Your task to perform on an android device: Search for flights from Tokyo to Seoul Image 0: 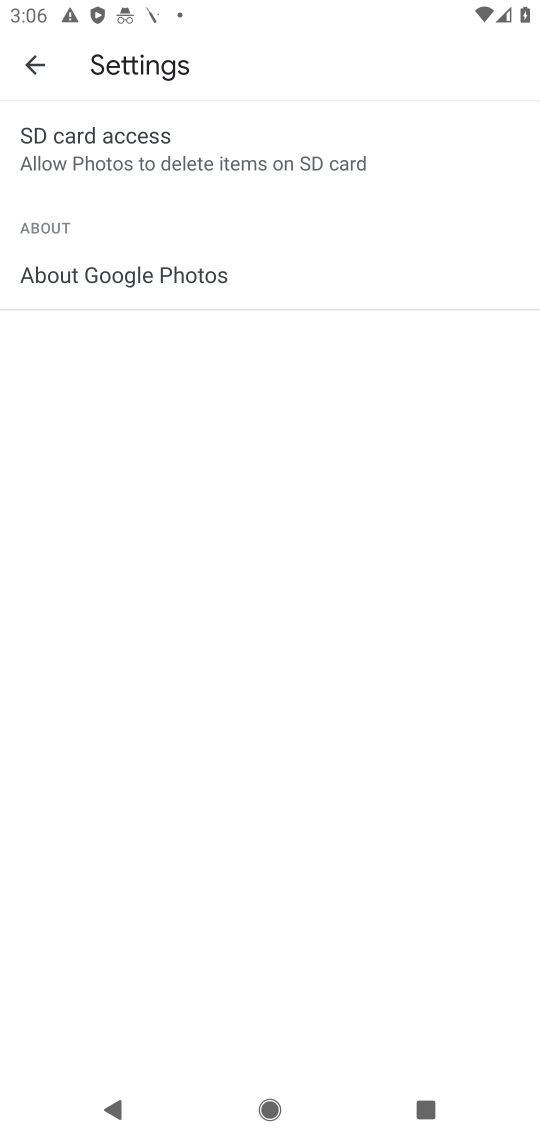
Step 0: press home button
Your task to perform on an android device: Search for flights from Tokyo to Seoul Image 1: 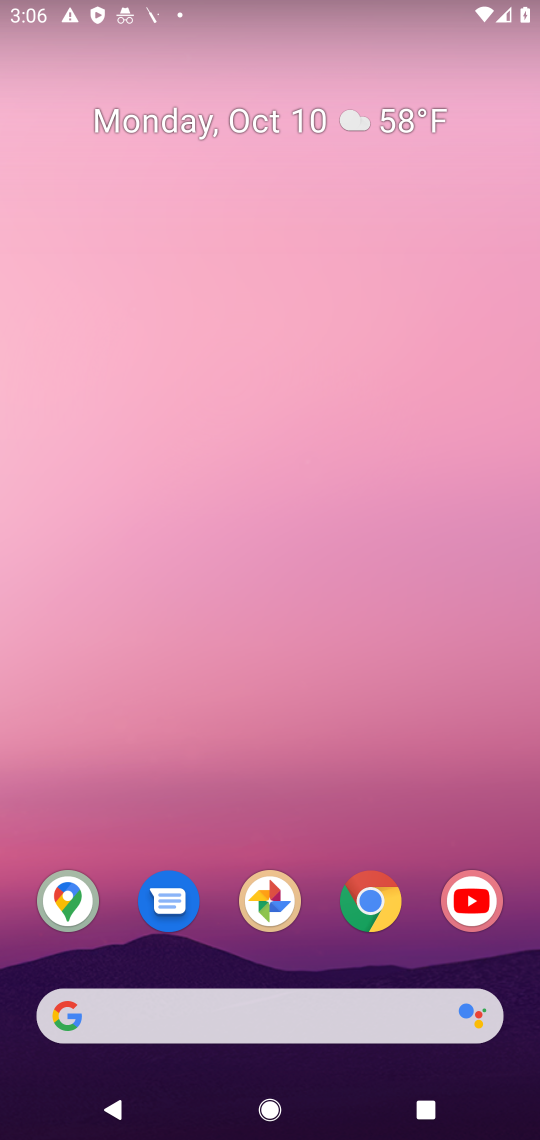
Step 1: drag from (344, 940) to (366, 469)
Your task to perform on an android device: Search for flights from Tokyo to Seoul Image 2: 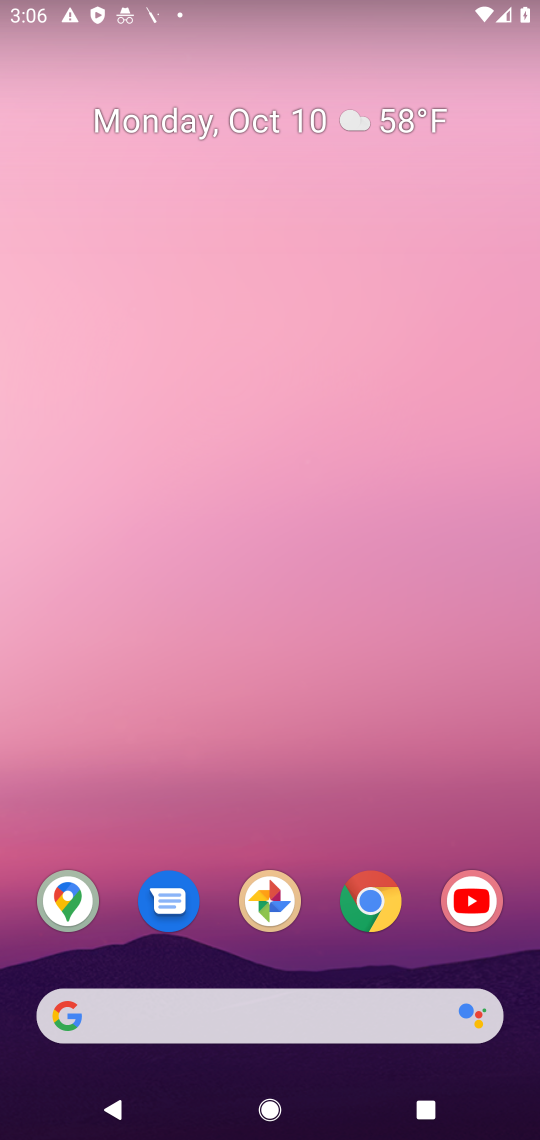
Step 2: drag from (282, 933) to (320, 302)
Your task to perform on an android device: Search for flights from Tokyo to Seoul Image 3: 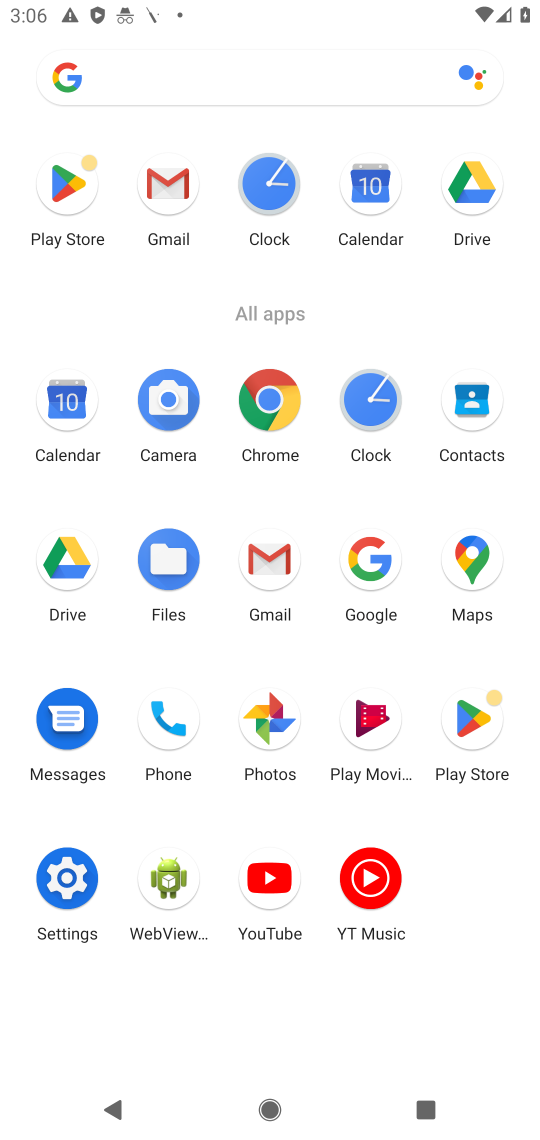
Step 3: click (376, 598)
Your task to perform on an android device: Search for flights from Tokyo to Seoul Image 4: 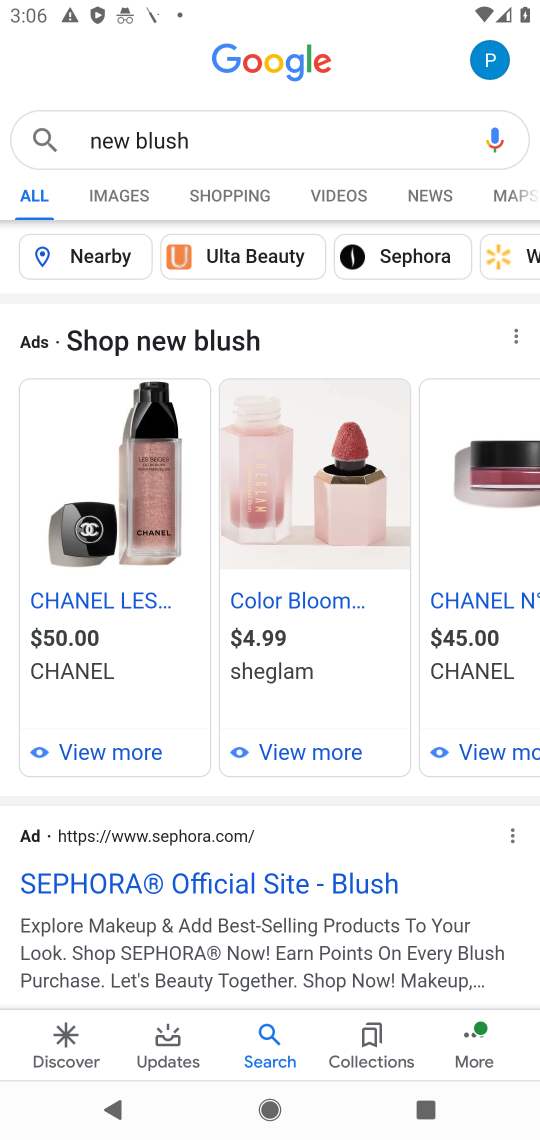
Step 4: click (305, 142)
Your task to perform on an android device: Search for flights from Tokyo to Seoul Image 5: 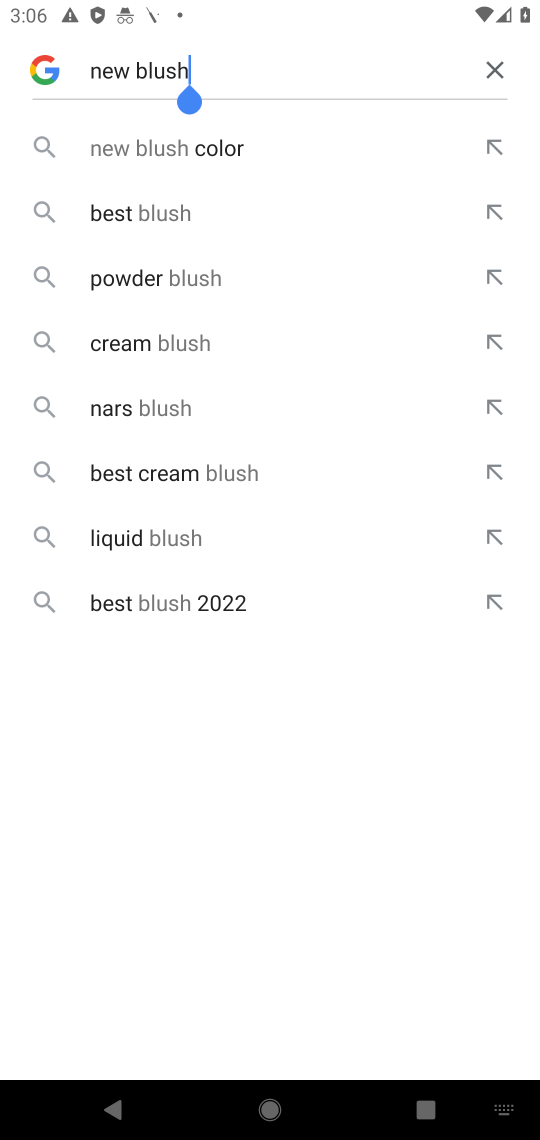
Step 5: click (495, 71)
Your task to perform on an android device: Search for flights from Tokyo to Seoul Image 6: 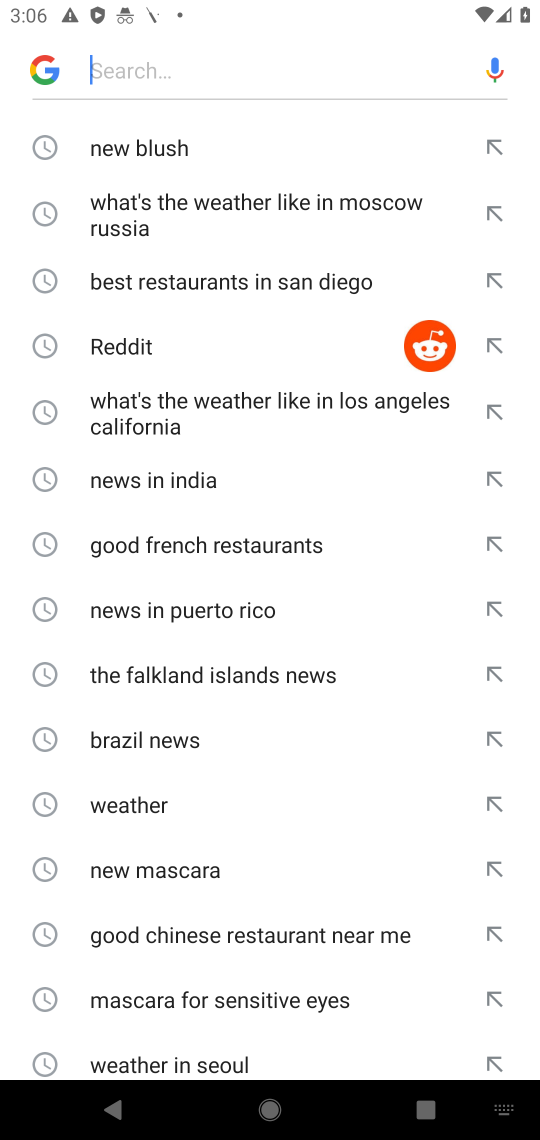
Step 6: type "flights from Tokyo to Seoul"
Your task to perform on an android device: Search for flights from Tokyo to Seoul Image 7: 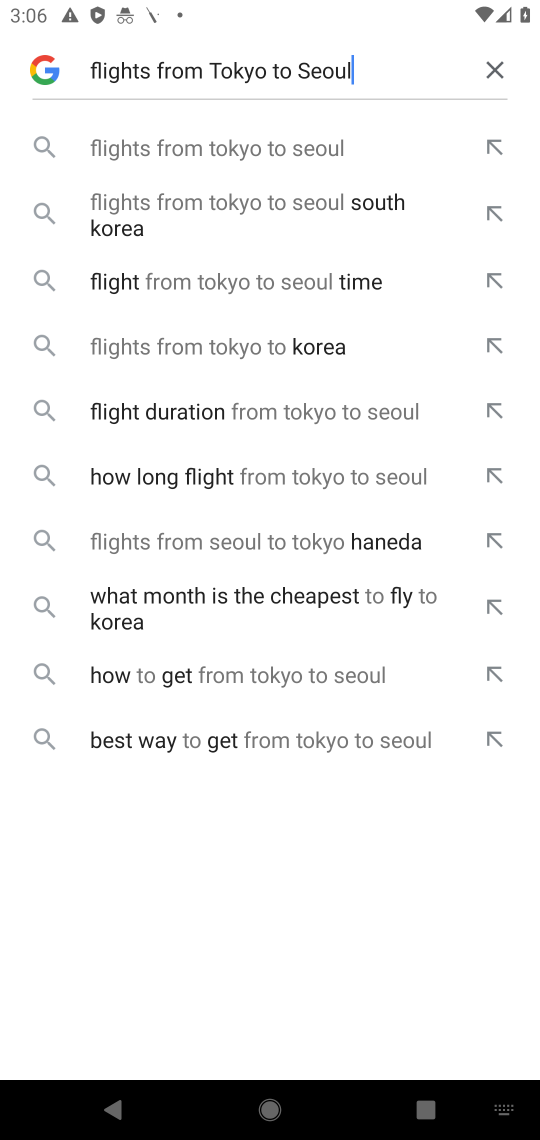
Step 7: click (342, 150)
Your task to perform on an android device: Search for flights from Tokyo to Seoul Image 8: 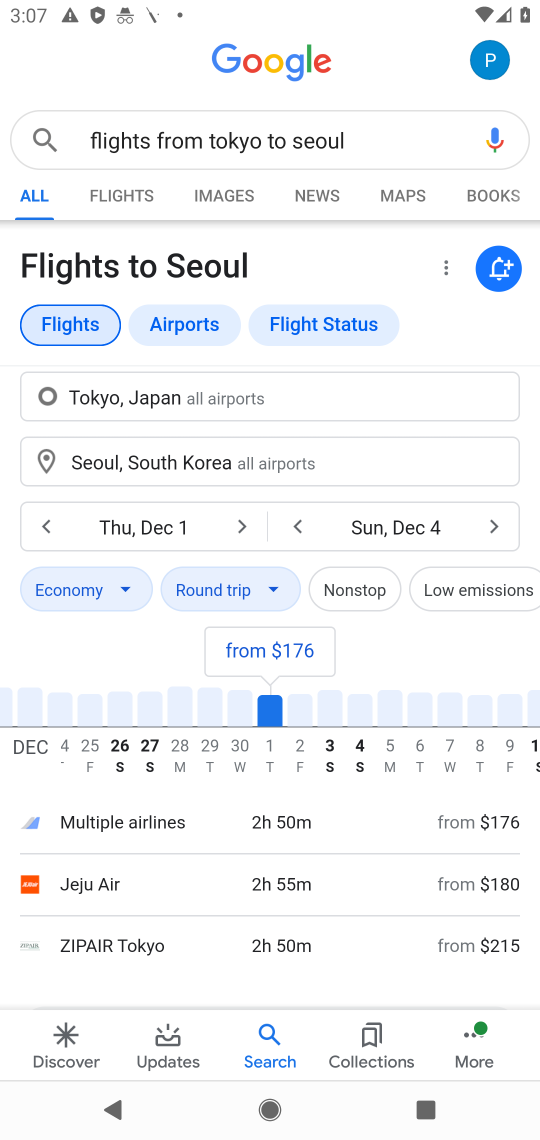
Step 8: task complete